Your task to perform on an android device: Open maps Image 0: 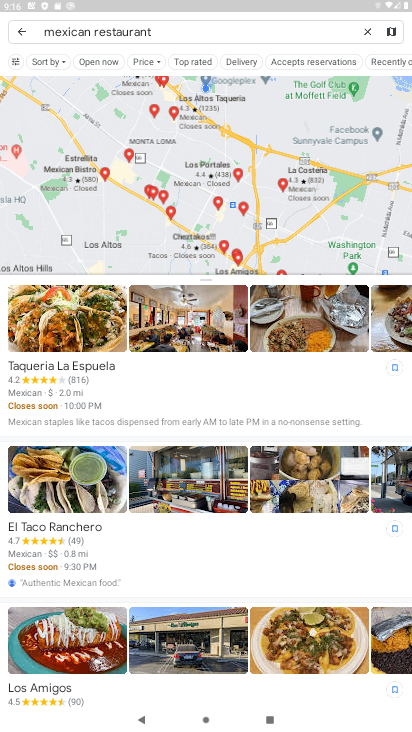
Step 0: press home button
Your task to perform on an android device: Open maps Image 1: 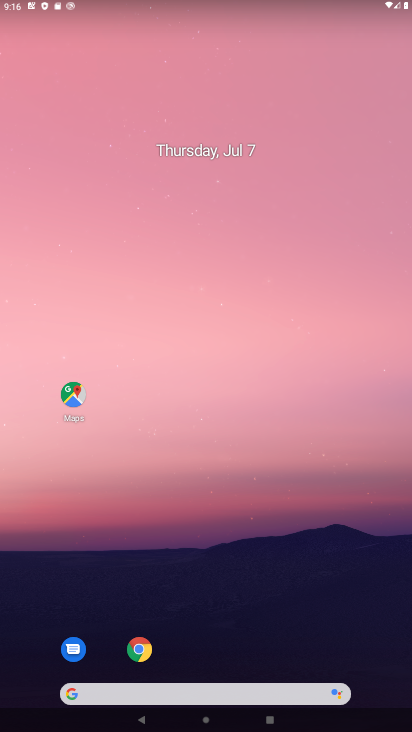
Step 1: drag from (226, 705) to (199, 57)
Your task to perform on an android device: Open maps Image 2: 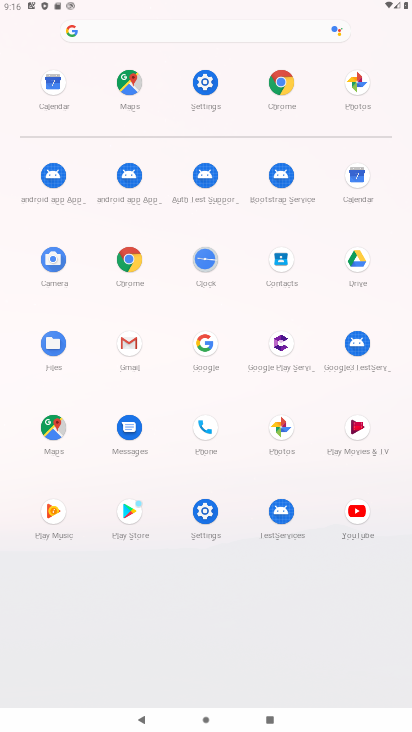
Step 2: click (128, 76)
Your task to perform on an android device: Open maps Image 3: 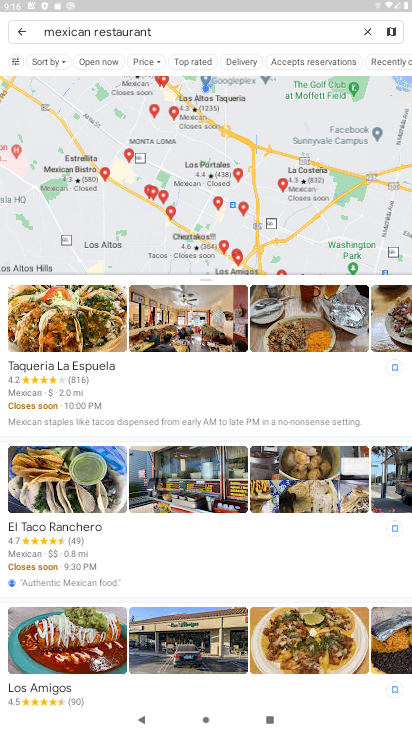
Step 3: task complete